Your task to perform on an android device: move an email to a new category in the gmail app Image 0: 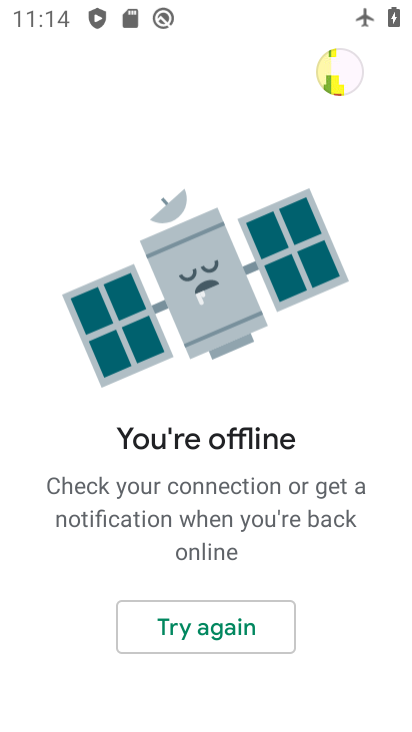
Step 0: press home button
Your task to perform on an android device: move an email to a new category in the gmail app Image 1: 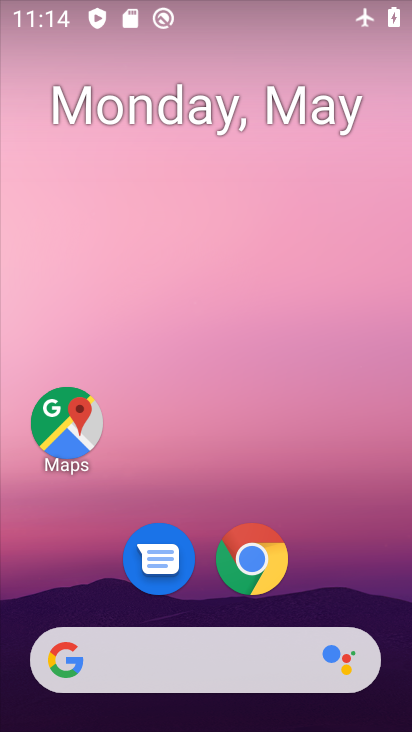
Step 1: drag from (403, 680) to (328, 19)
Your task to perform on an android device: move an email to a new category in the gmail app Image 2: 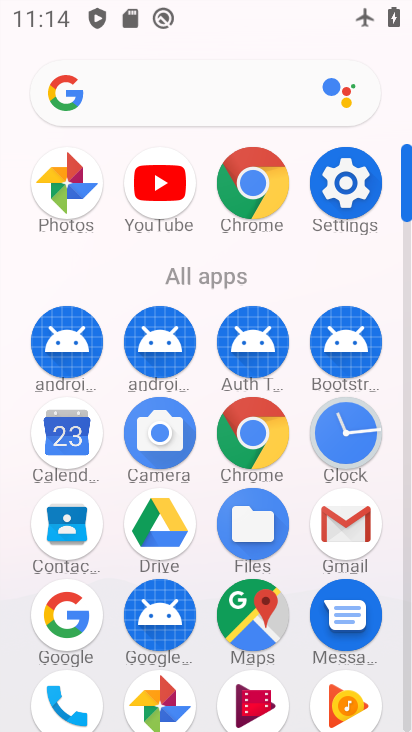
Step 2: click (350, 526)
Your task to perform on an android device: move an email to a new category in the gmail app Image 3: 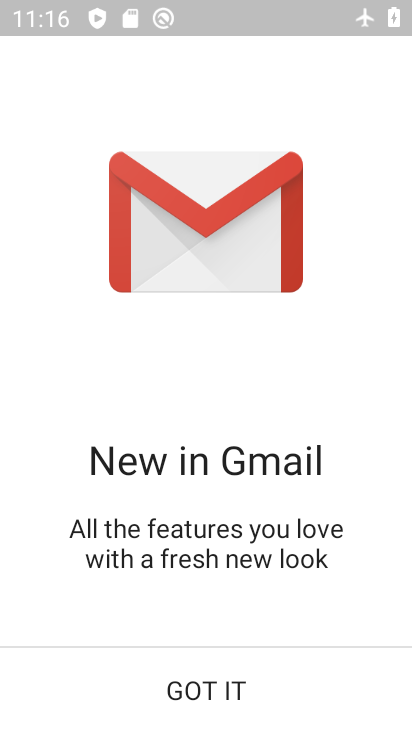
Step 3: click (109, 685)
Your task to perform on an android device: move an email to a new category in the gmail app Image 4: 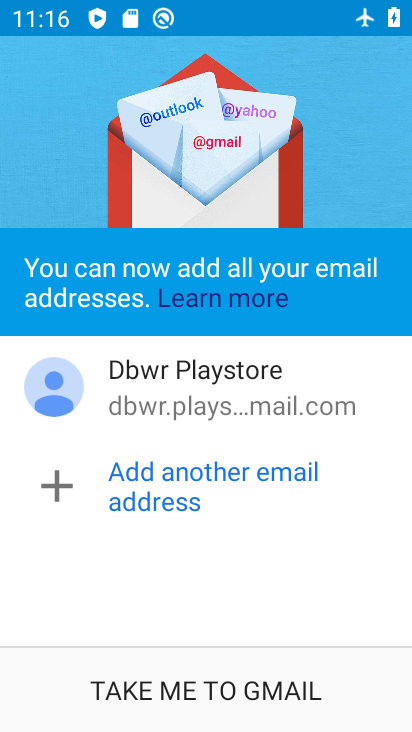
Step 4: click (202, 697)
Your task to perform on an android device: move an email to a new category in the gmail app Image 5: 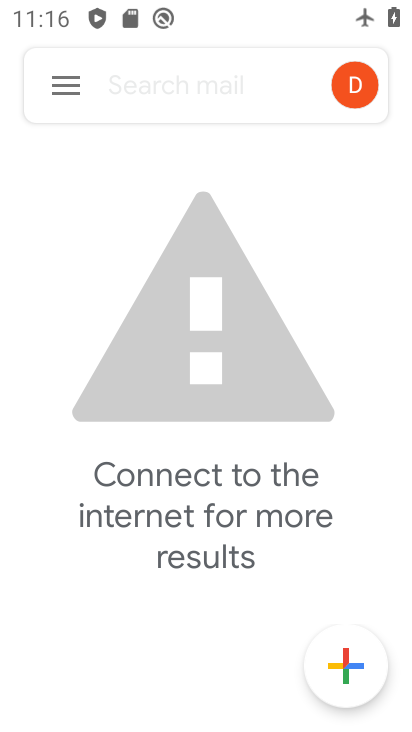
Step 5: task complete